Your task to perform on an android device: turn on data saver in the chrome app Image 0: 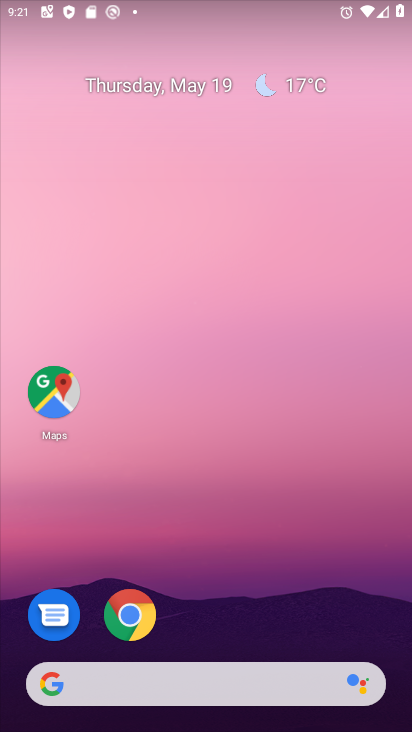
Step 0: click (112, 631)
Your task to perform on an android device: turn on data saver in the chrome app Image 1: 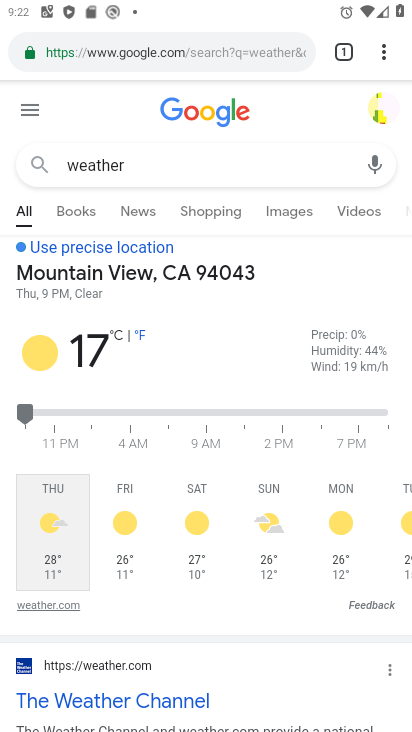
Step 1: drag from (383, 41) to (189, 642)
Your task to perform on an android device: turn on data saver in the chrome app Image 2: 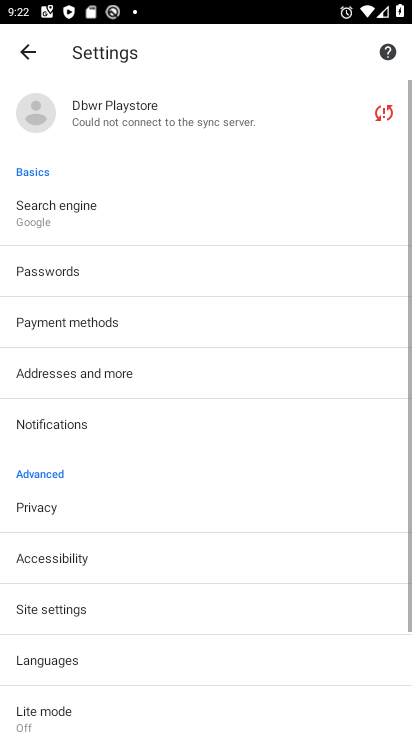
Step 2: drag from (88, 639) to (154, 437)
Your task to perform on an android device: turn on data saver in the chrome app Image 3: 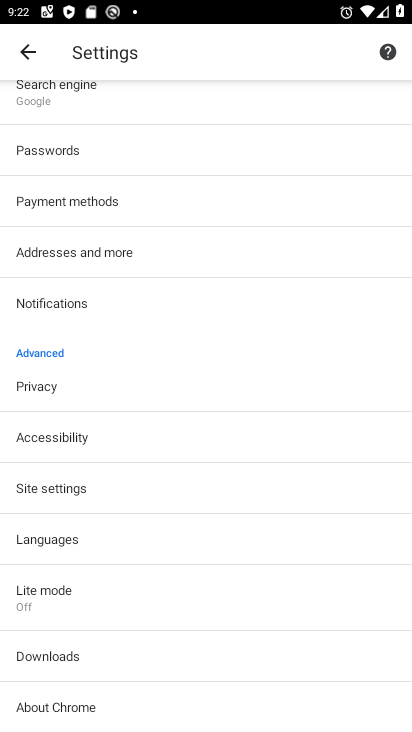
Step 3: click (40, 612)
Your task to perform on an android device: turn on data saver in the chrome app Image 4: 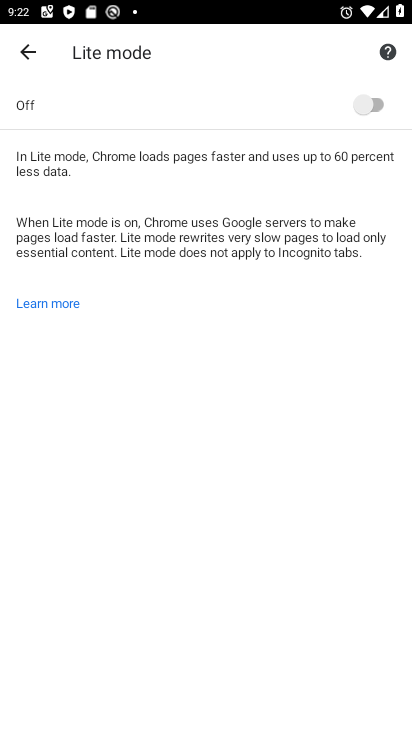
Step 4: click (374, 113)
Your task to perform on an android device: turn on data saver in the chrome app Image 5: 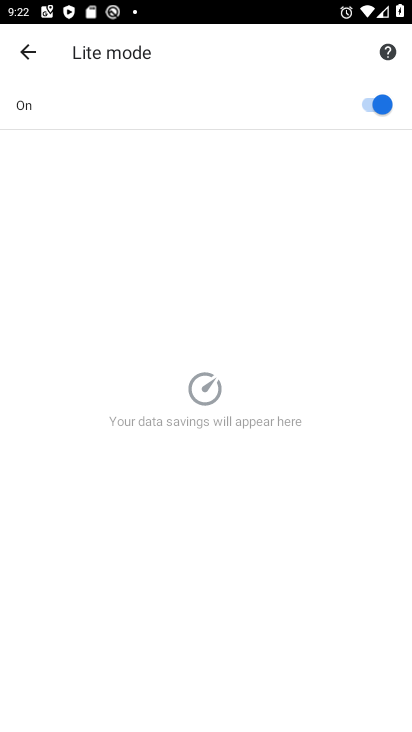
Step 5: task complete